Your task to perform on an android device: toggle data saver in the chrome app Image 0: 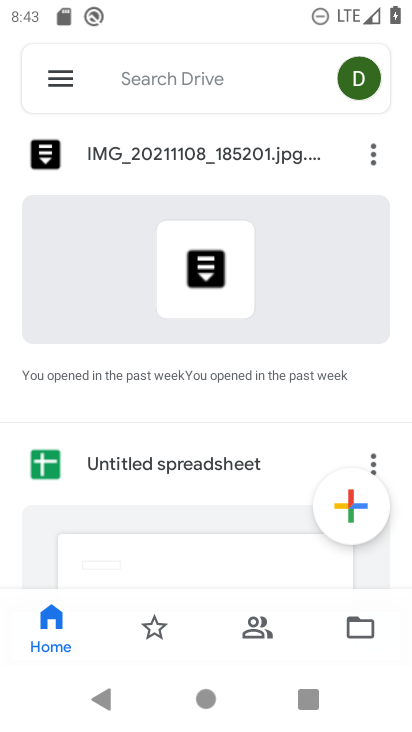
Step 0: press home button
Your task to perform on an android device: toggle data saver in the chrome app Image 1: 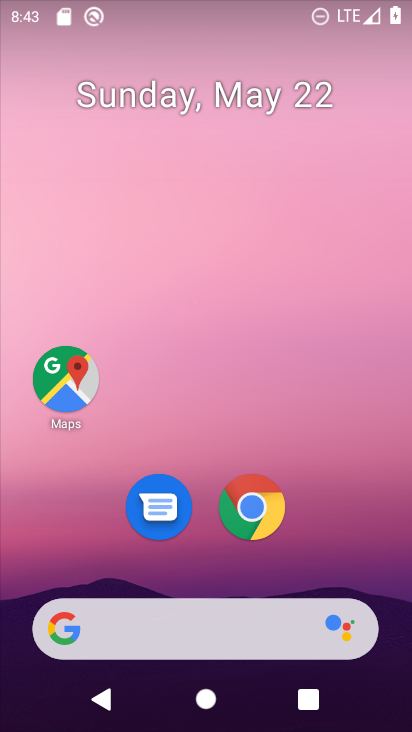
Step 1: click (265, 524)
Your task to perform on an android device: toggle data saver in the chrome app Image 2: 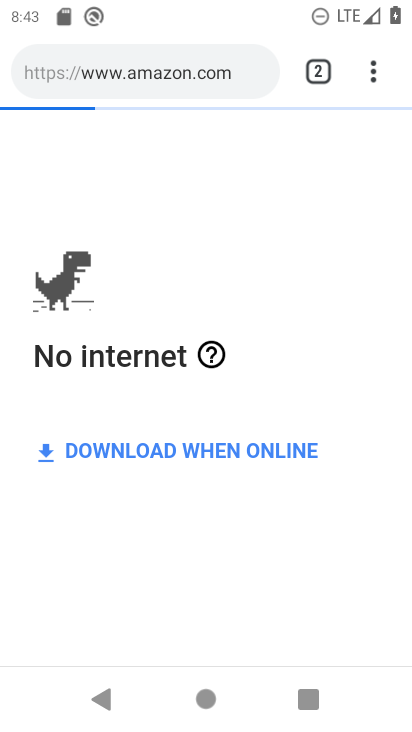
Step 2: click (378, 73)
Your task to perform on an android device: toggle data saver in the chrome app Image 3: 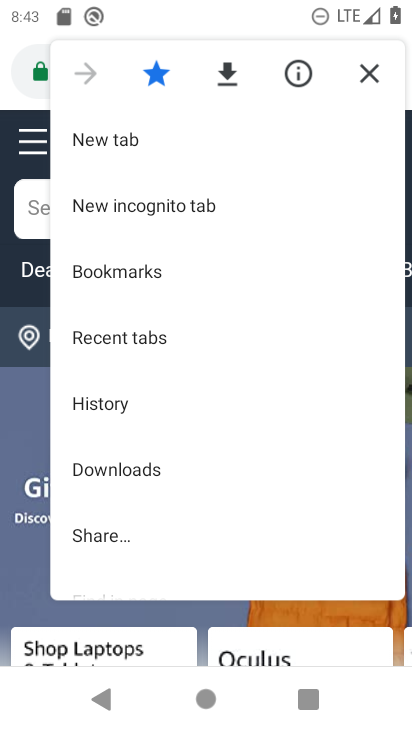
Step 3: drag from (189, 574) to (138, 2)
Your task to perform on an android device: toggle data saver in the chrome app Image 4: 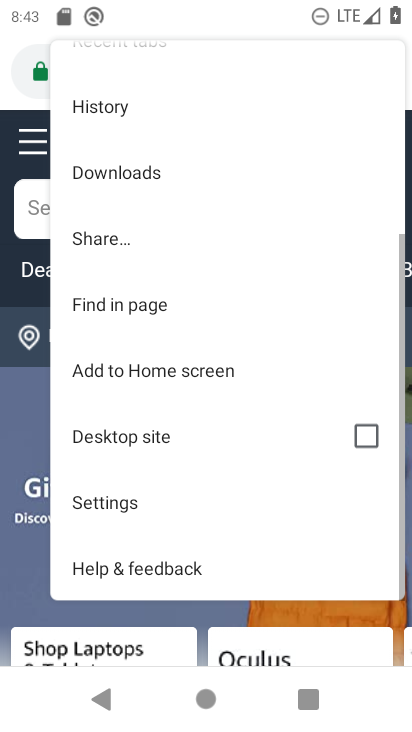
Step 4: click (136, 508)
Your task to perform on an android device: toggle data saver in the chrome app Image 5: 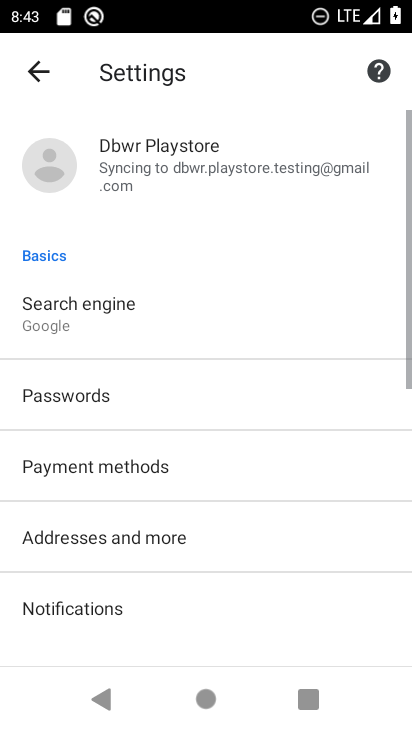
Step 5: drag from (185, 494) to (163, 111)
Your task to perform on an android device: toggle data saver in the chrome app Image 6: 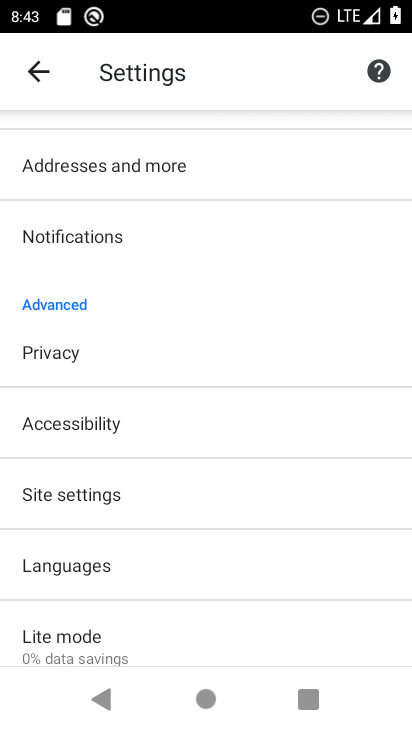
Step 6: click (102, 634)
Your task to perform on an android device: toggle data saver in the chrome app Image 7: 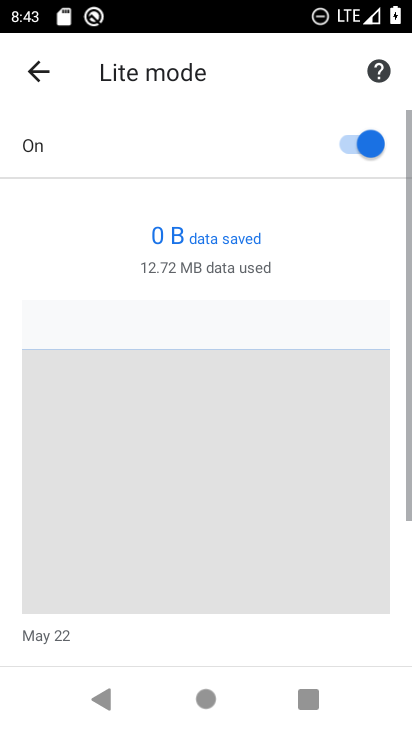
Step 7: click (359, 133)
Your task to perform on an android device: toggle data saver in the chrome app Image 8: 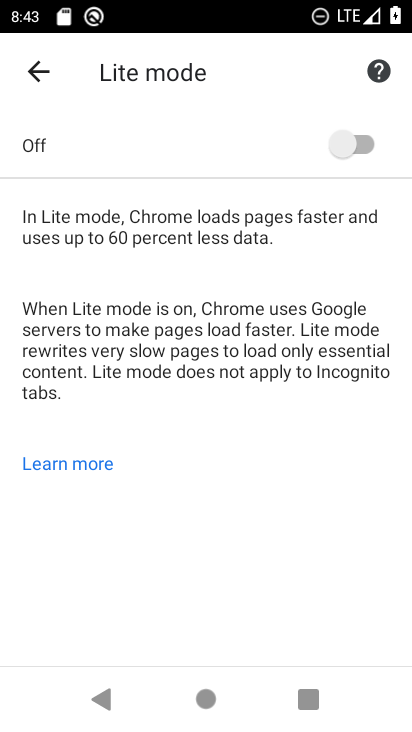
Step 8: task complete